Your task to perform on an android device: Open Android settings Image 0: 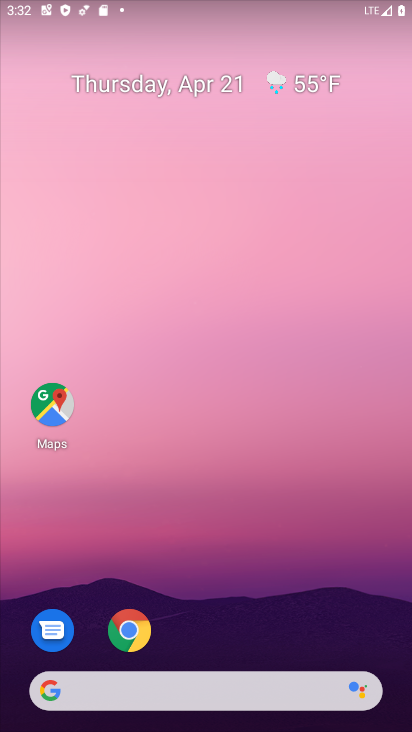
Step 0: drag from (280, 349) to (325, 2)
Your task to perform on an android device: Open Android settings Image 1: 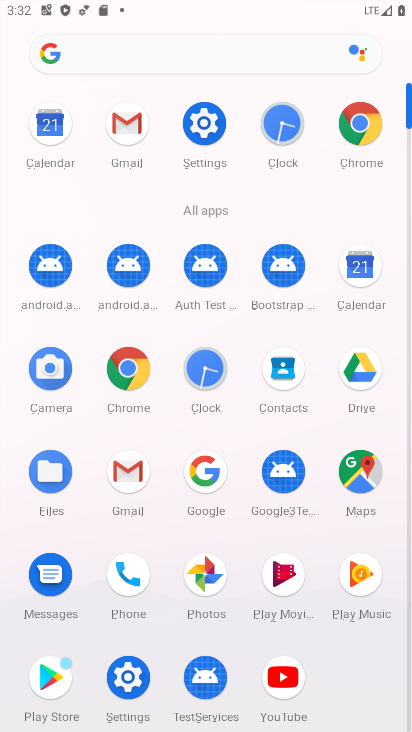
Step 1: click (355, 121)
Your task to perform on an android device: Open Android settings Image 2: 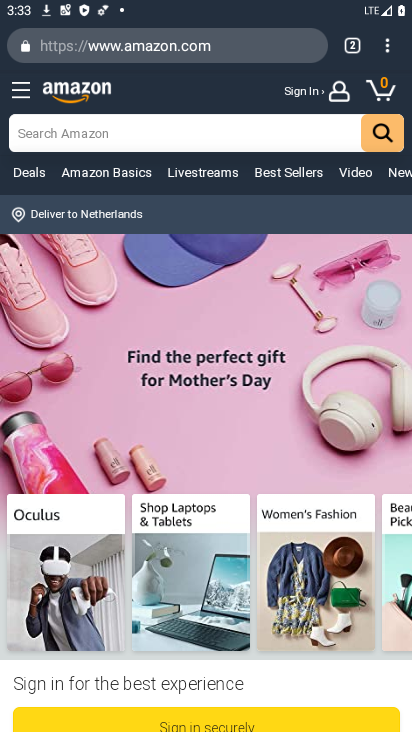
Step 2: press back button
Your task to perform on an android device: Open Android settings Image 3: 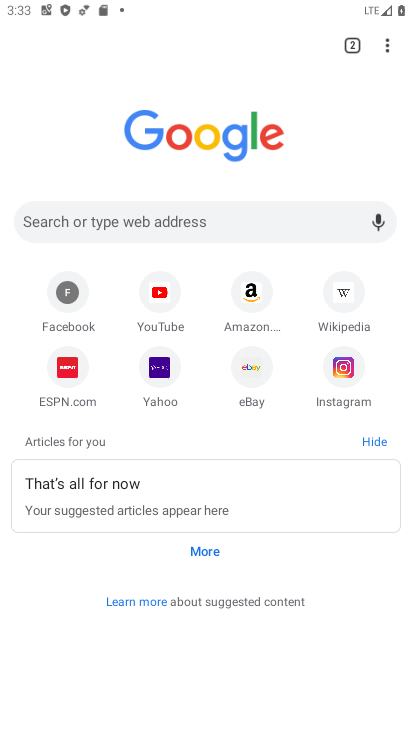
Step 3: press back button
Your task to perform on an android device: Open Android settings Image 4: 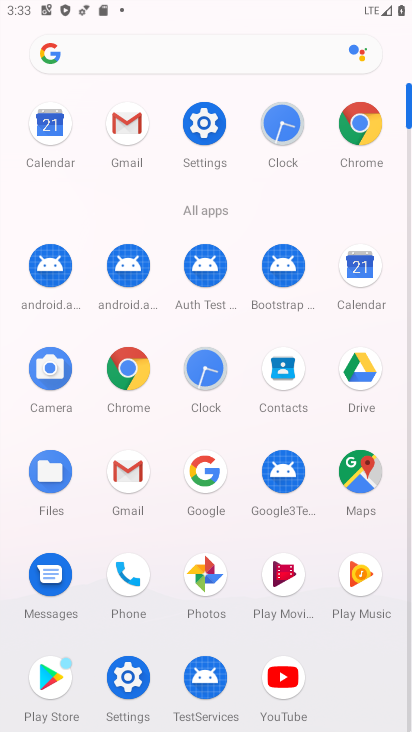
Step 4: press home button
Your task to perform on an android device: Open Android settings Image 5: 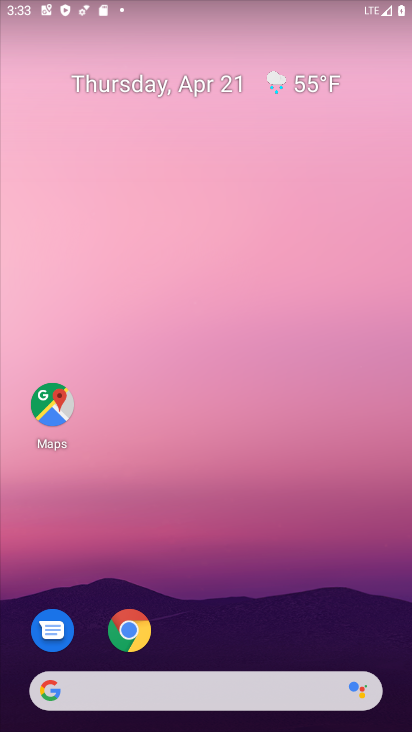
Step 5: drag from (205, 519) to (288, 53)
Your task to perform on an android device: Open Android settings Image 6: 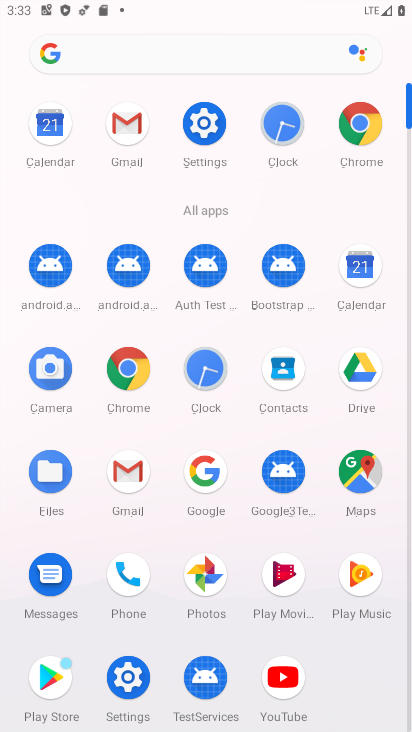
Step 6: click (207, 122)
Your task to perform on an android device: Open Android settings Image 7: 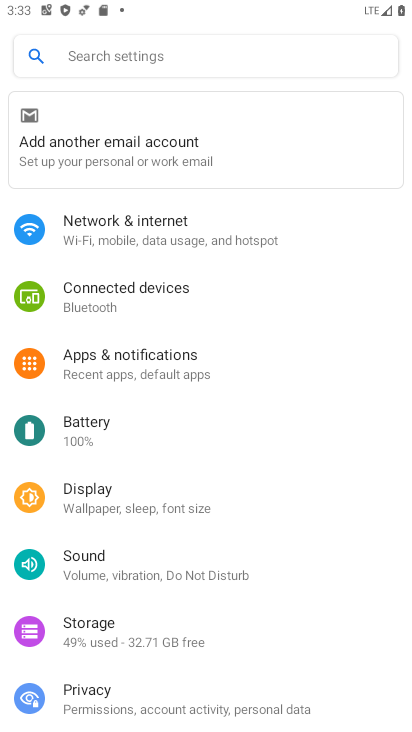
Step 7: drag from (174, 635) to (359, 60)
Your task to perform on an android device: Open Android settings Image 8: 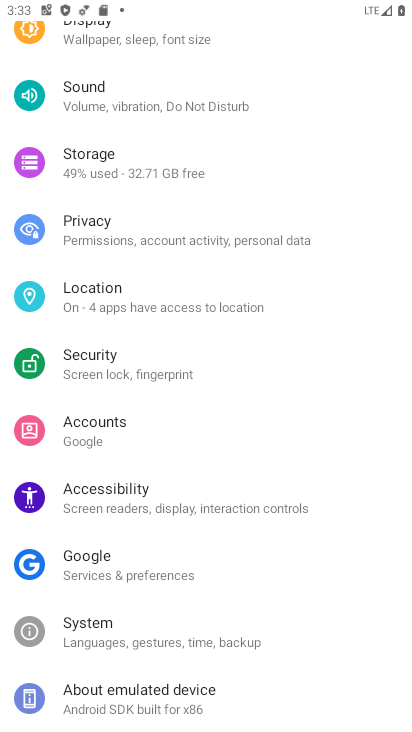
Step 8: click (146, 696)
Your task to perform on an android device: Open Android settings Image 9: 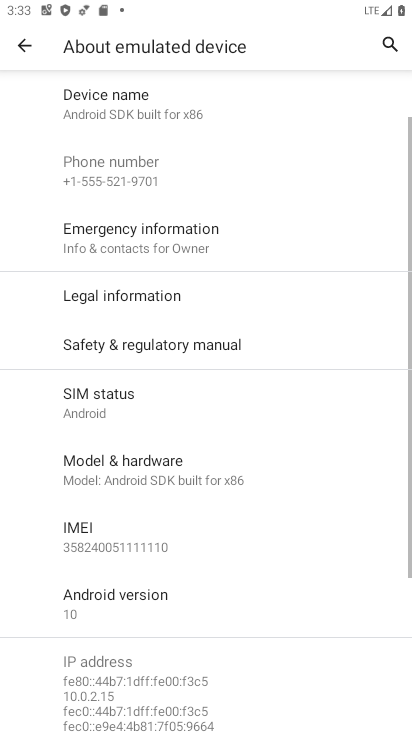
Step 9: click (100, 597)
Your task to perform on an android device: Open Android settings Image 10: 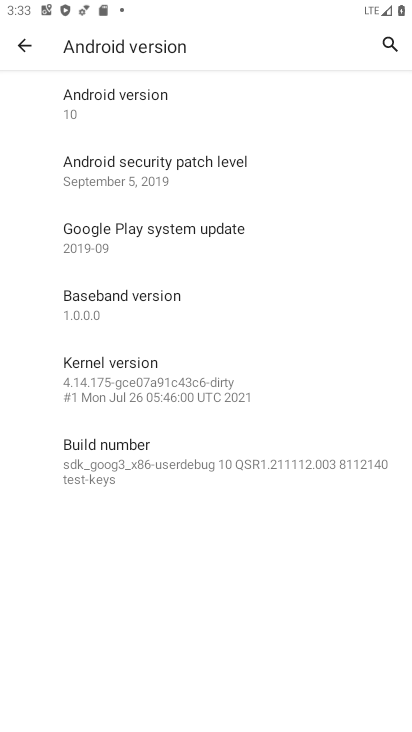
Step 10: task complete